Your task to perform on an android device: Open Amazon Image 0: 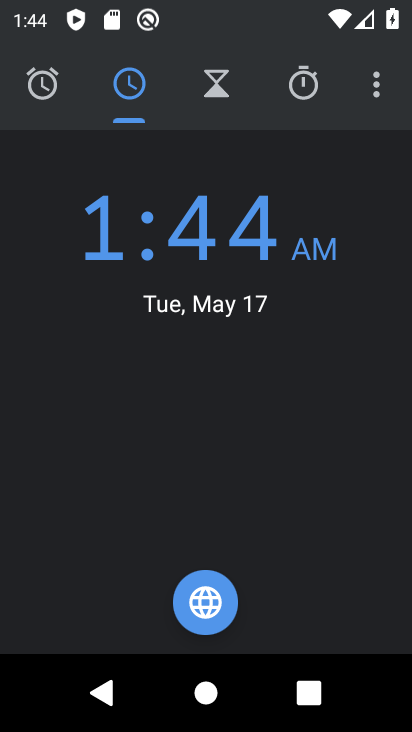
Step 0: press home button
Your task to perform on an android device: Open Amazon Image 1: 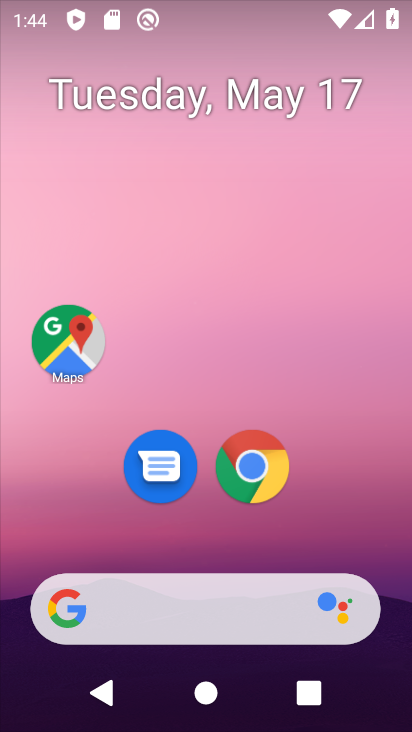
Step 1: click (258, 476)
Your task to perform on an android device: Open Amazon Image 2: 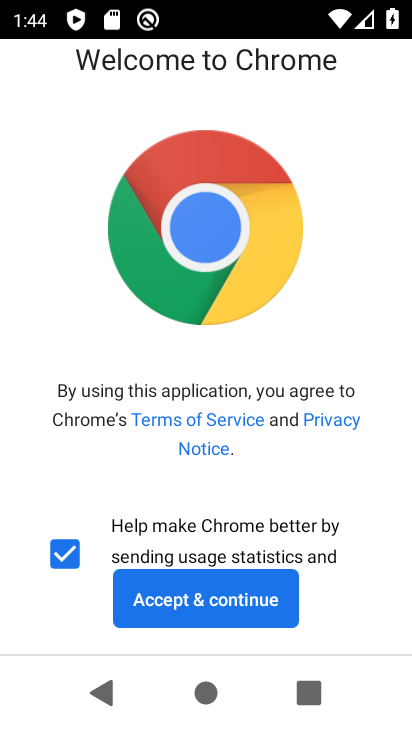
Step 2: click (262, 615)
Your task to perform on an android device: Open Amazon Image 3: 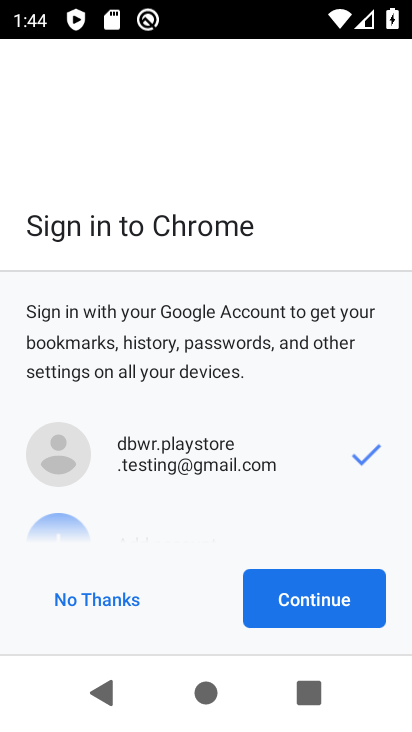
Step 3: click (314, 607)
Your task to perform on an android device: Open Amazon Image 4: 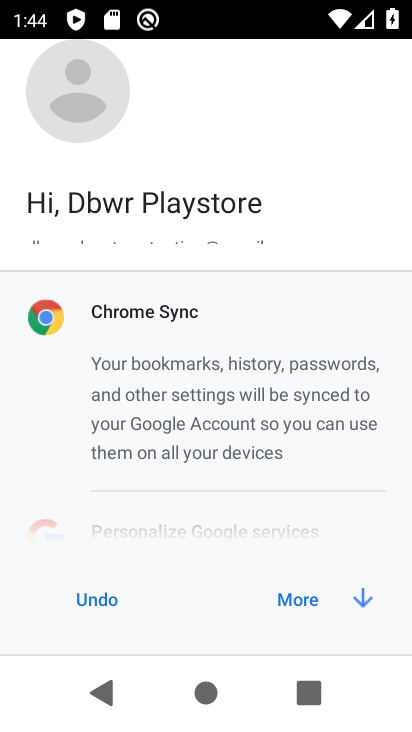
Step 4: click (314, 607)
Your task to perform on an android device: Open Amazon Image 5: 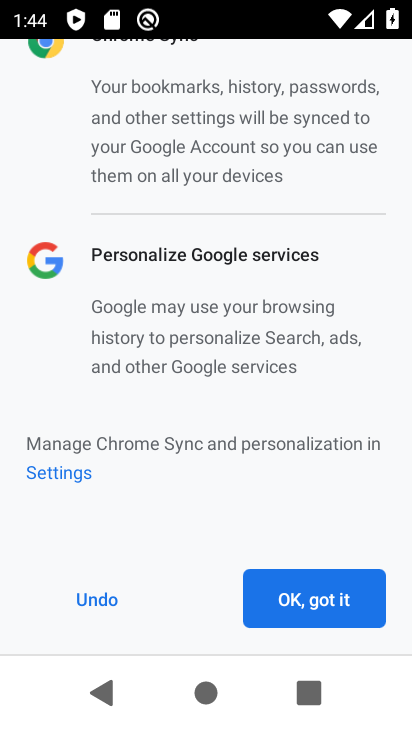
Step 5: click (314, 607)
Your task to perform on an android device: Open Amazon Image 6: 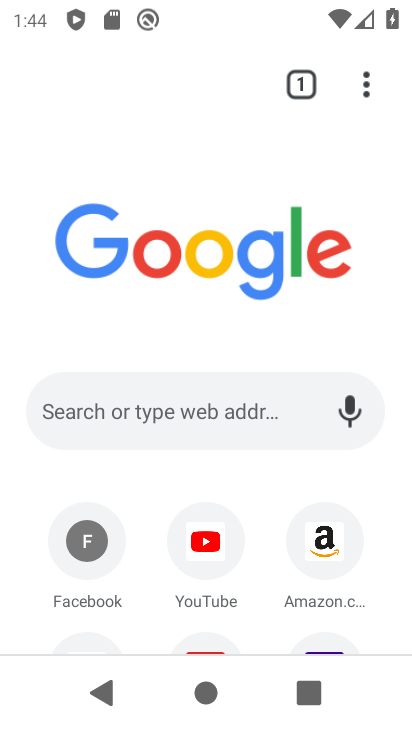
Step 6: drag from (244, 574) to (321, 362)
Your task to perform on an android device: Open Amazon Image 7: 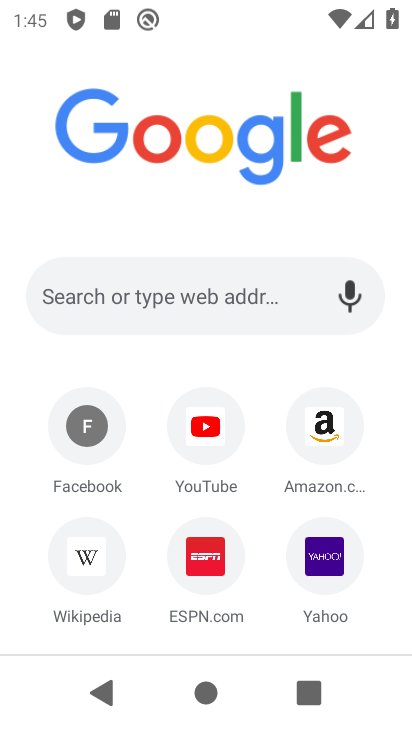
Step 7: click (303, 431)
Your task to perform on an android device: Open Amazon Image 8: 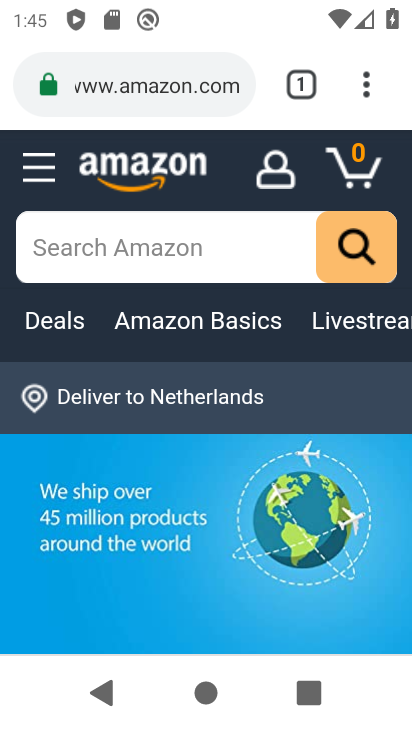
Step 8: task complete